Your task to perform on an android device: Go to calendar. Show me events next week Image 0: 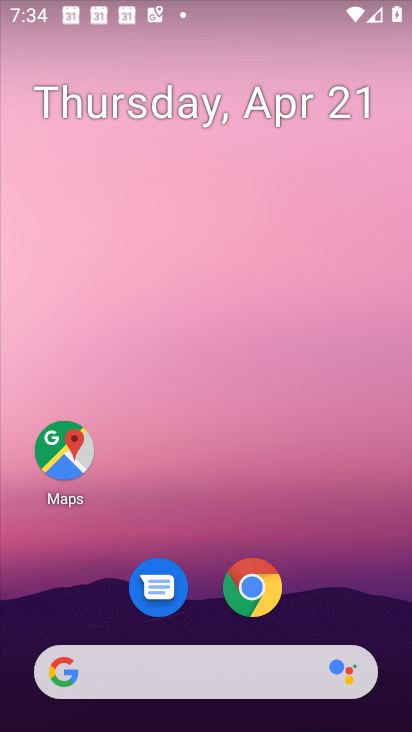
Step 0: drag from (371, 177) to (369, 126)
Your task to perform on an android device: Go to calendar. Show me events next week Image 1: 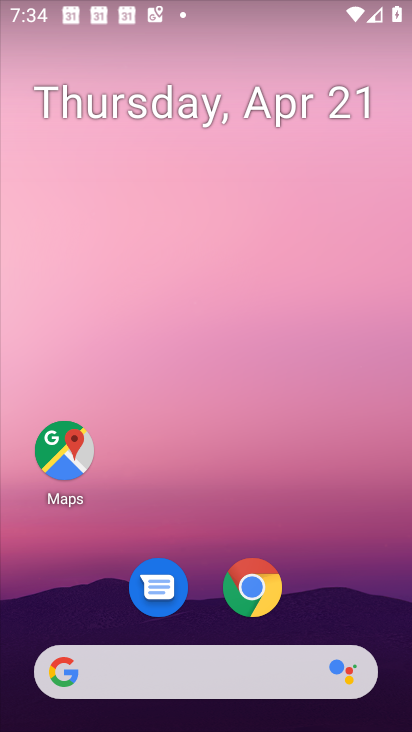
Step 1: drag from (408, 448) to (387, 165)
Your task to perform on an android device: Go to calendar. Show me events next week Image 2: 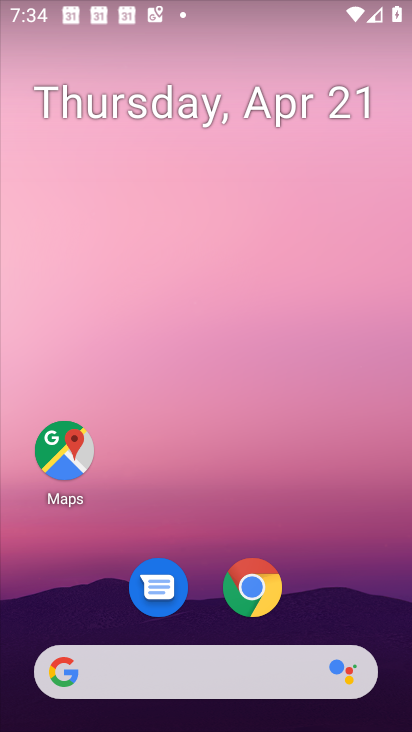
Step 2: drag from (389, 596) to (388, 310)
Your task to perform on an android device: Go to calendar. Show me events next week Image 3: 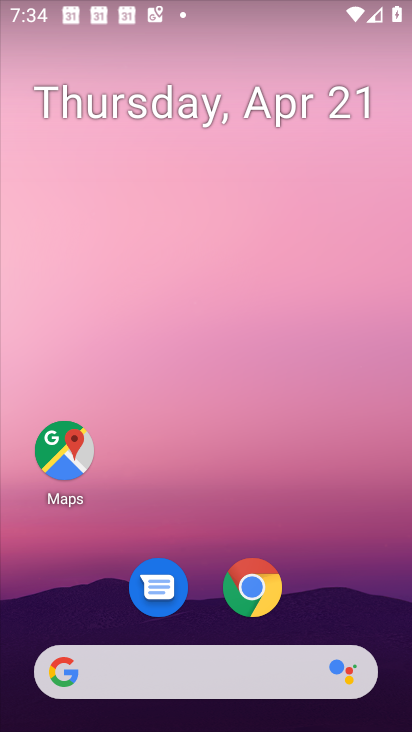
Step 3: drag from (378, 530) to (373, 82)
Your task to perform on an android device: Go to calendar. Show me events next week Image 4: 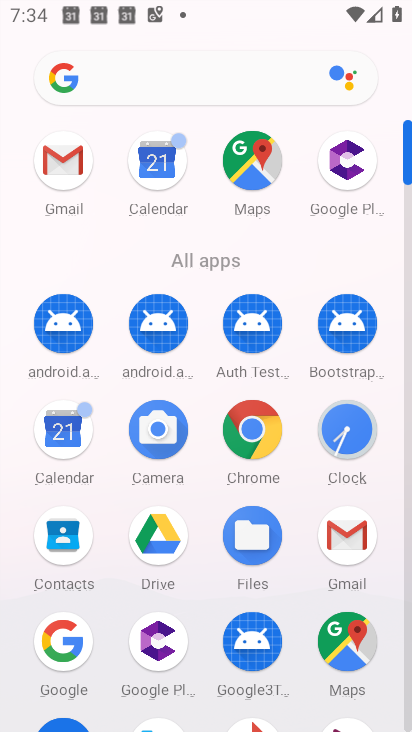
Step 4: click (59, 431)
Your task to perform on an android device: Go to calendar. Show me events next week Image 5: 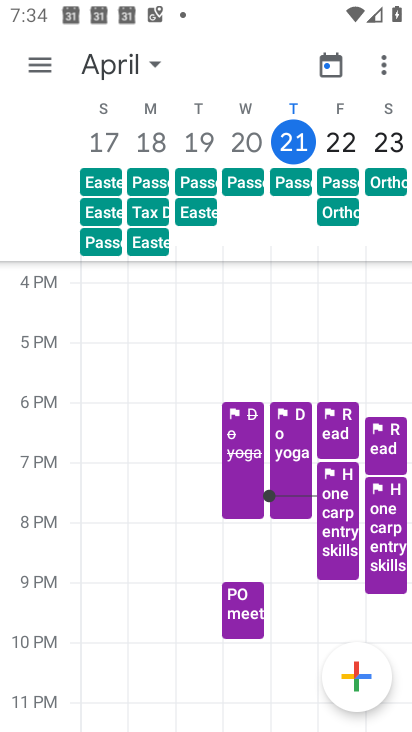
Step 5: click (147, 61)
Your task to perform on an android device: Go to calendar. Show me events next week Image 6: 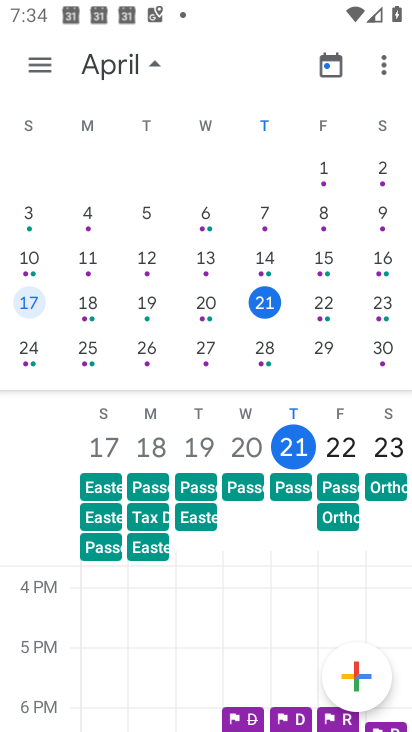
Step 6: click (146, 349)
Your task to perform on an android device: Go to calendar. Show me events next week Image 7: 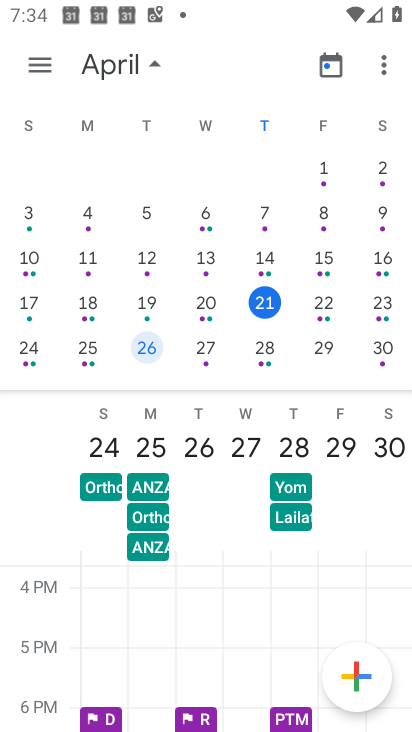
Step 7: click (39, 63)
Your task to perform on an android device: Go to calendar. Show me events next week Image 8: 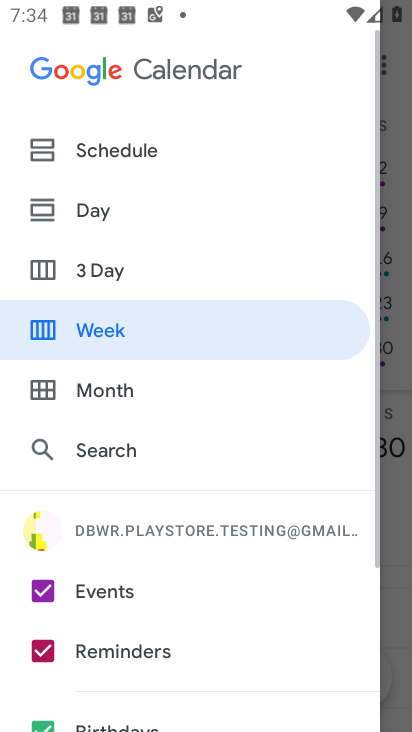
Step 8: click (74, 322)
Your task to perform on an android device: Go to calendar. Show me events next week Image 9: 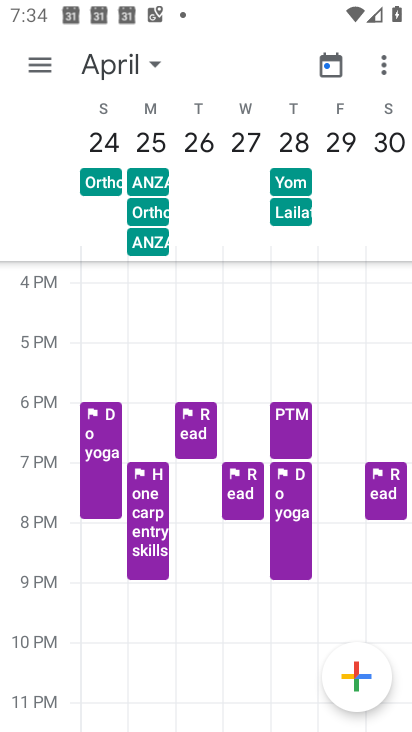
Step 9: task complete